Your task to perform on an android device: Go to Amazon Image 0: 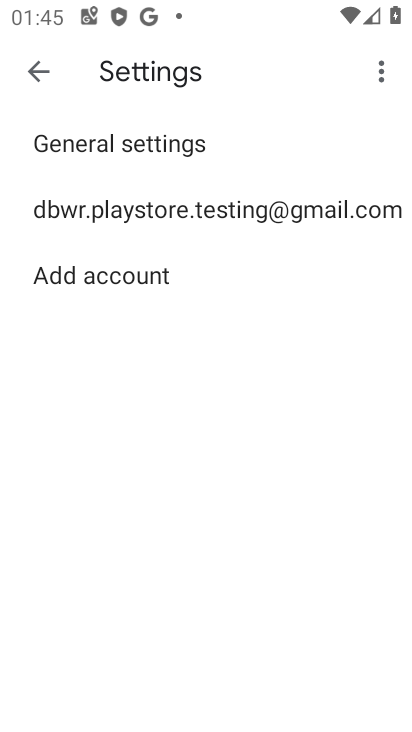
Step 0: press home button
Your task to perform on an android device: Go to Amazon Image 1: 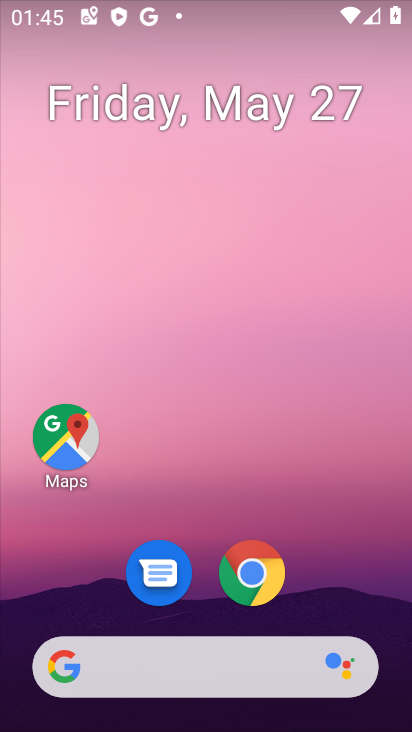
Step 1: click (214, 595)
Your task to perform on an android device: Go to Amazon Image 2: 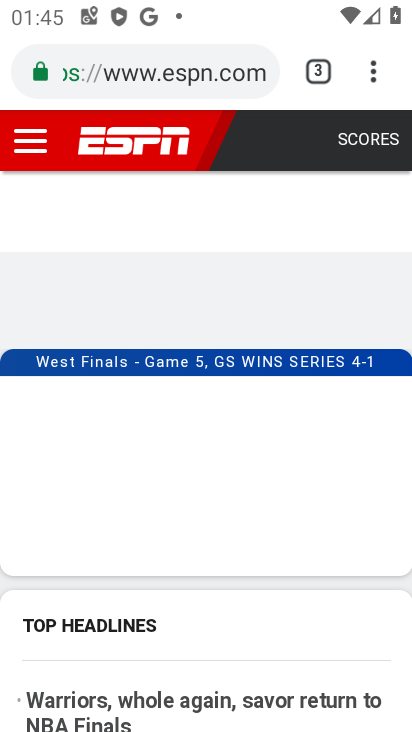
Step 2: click (238, 574)
Your task to perform on an android device: Go to Amazon Image 3: 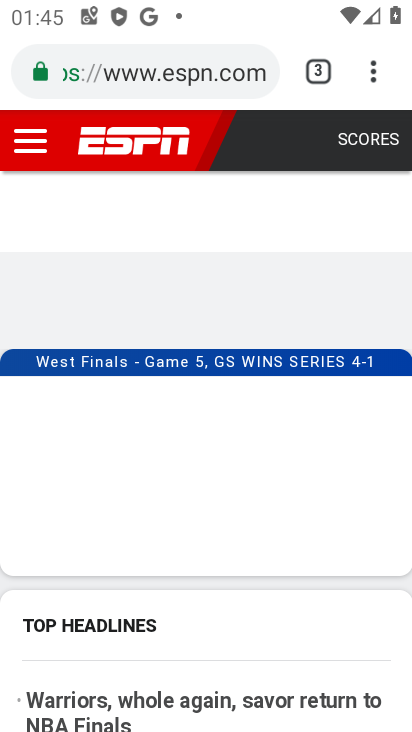
Step 3: click (309, 61)
Your task to perform on an android device: Go to Amazon Image 4: 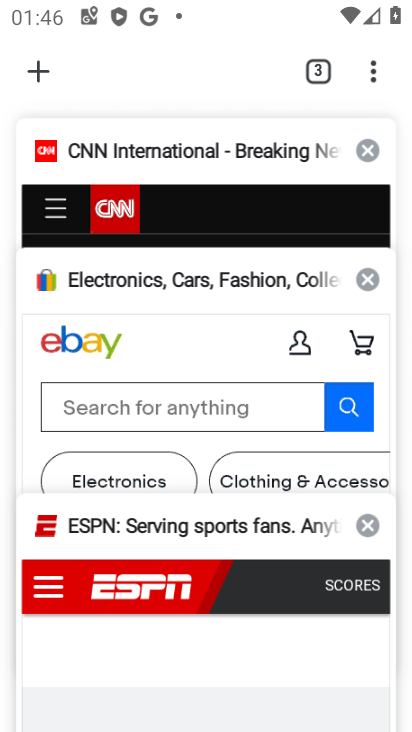
Step 4: click (40, 77)
Your task to perform on an android device: Go to Amazon Image 5: 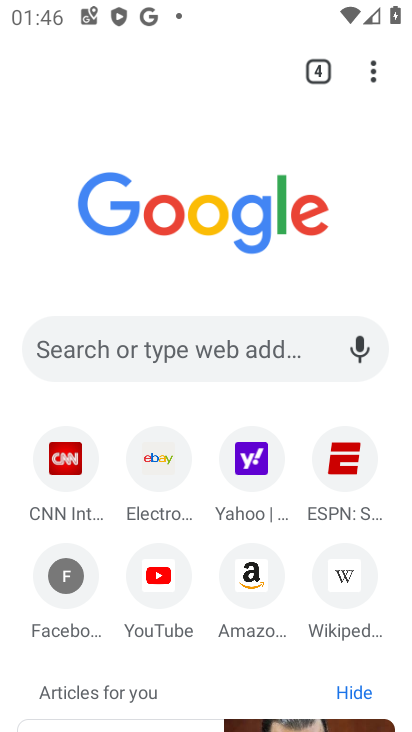
Step 5: click (251, 570)
Your task to perform on an android device: Go to Amazon Image 6: 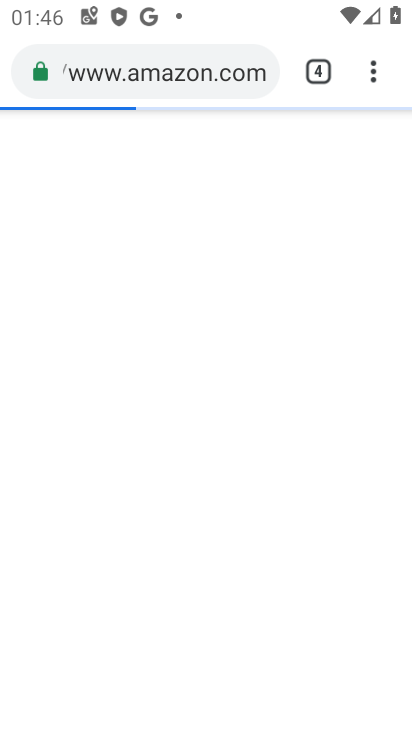
Step 6: task complete